Your task to perform on an android device: check android version Image 0: 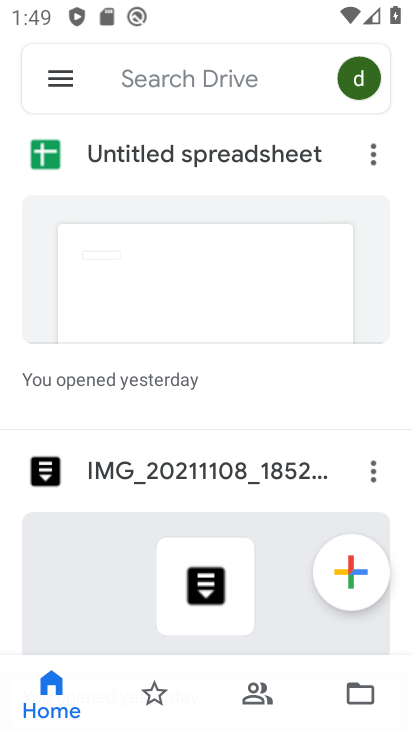
Step 0: drag from (250, 474) to (240, 245)
Your task to perform on an android device: check android version Image 1: 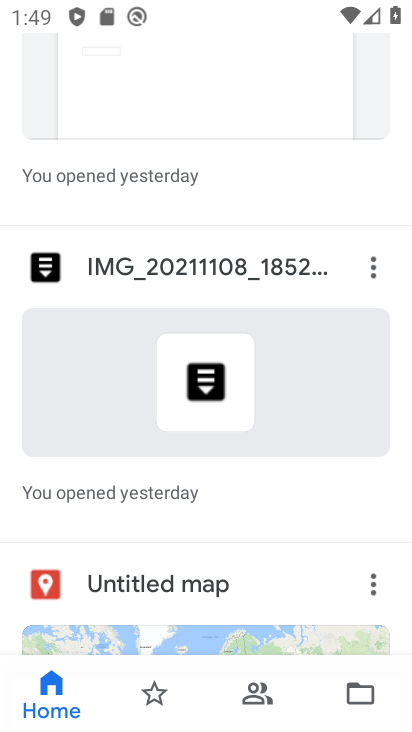
Step 1: drag from (237, 633) to (309, 176)
Your task to perform on an android device: check android version Image 2: 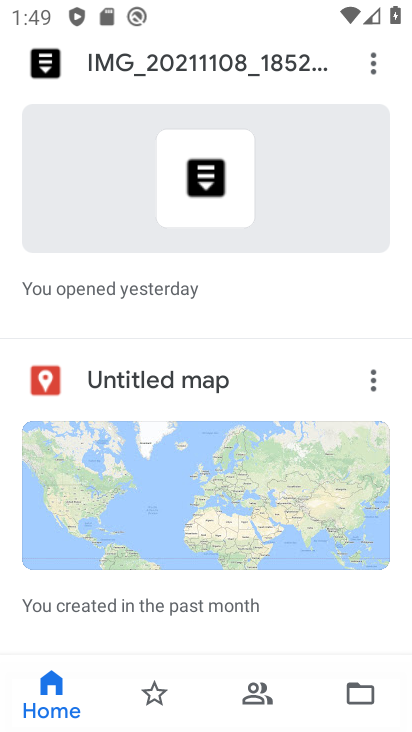
Step 2: press home button
Your task to perform on an android device: check android version Image 3: 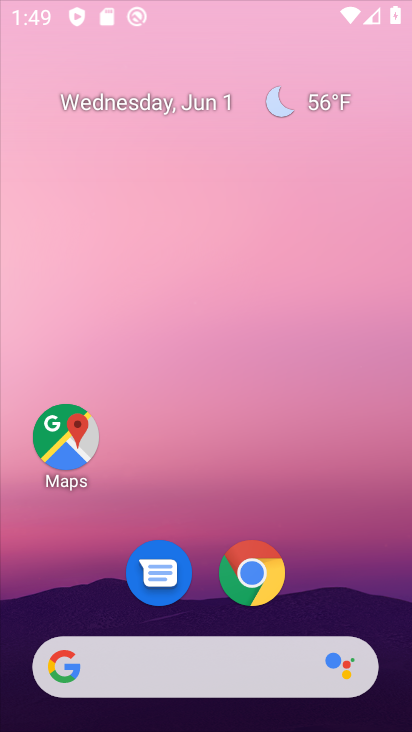
Step 3: drag from (240, 598) to (253, 186)
Your task to perform on an android device: check android version Image 4: 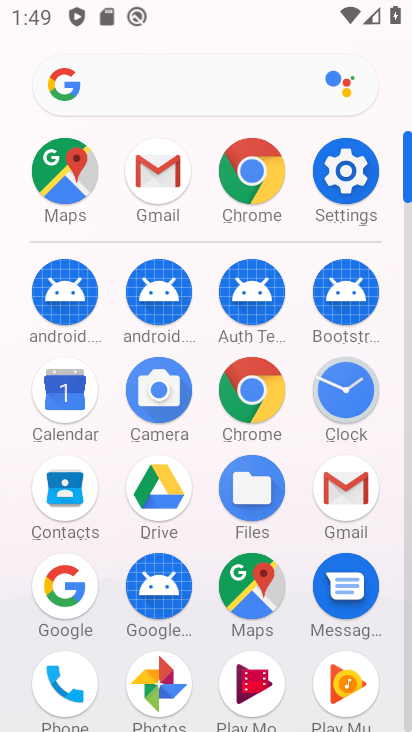
Step 4: click (343, 174)
Your task to perform on an android device: check android version Image 5: 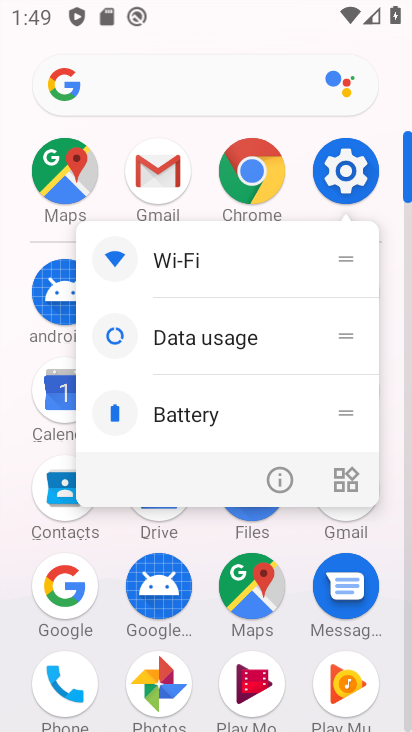
Step 5: click (273, 472)
Your task to perform on an android device: check android version Image 6: 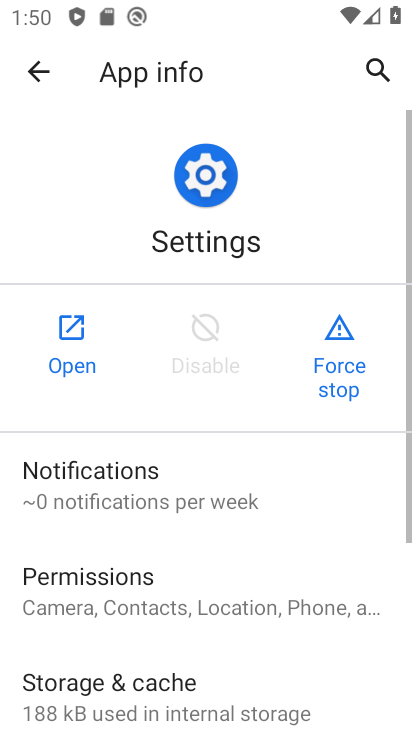
Step 6: click (54, 345)
Your task to perform on an android device: check android version Image 7: 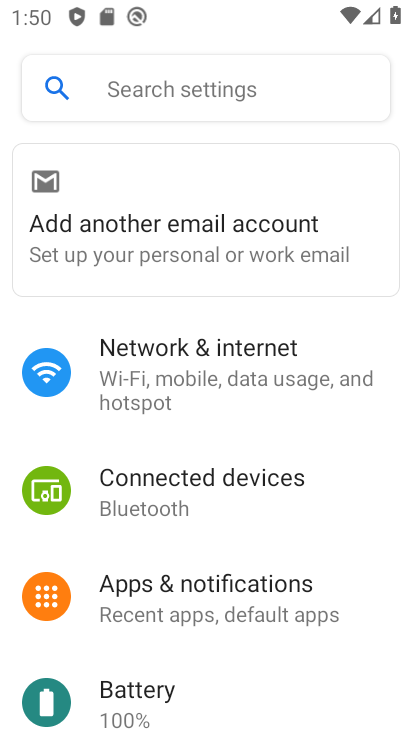
Step 7: drag from (178, 560) to (208, 23)
Your task to perform on an android device: check android version Image 8: 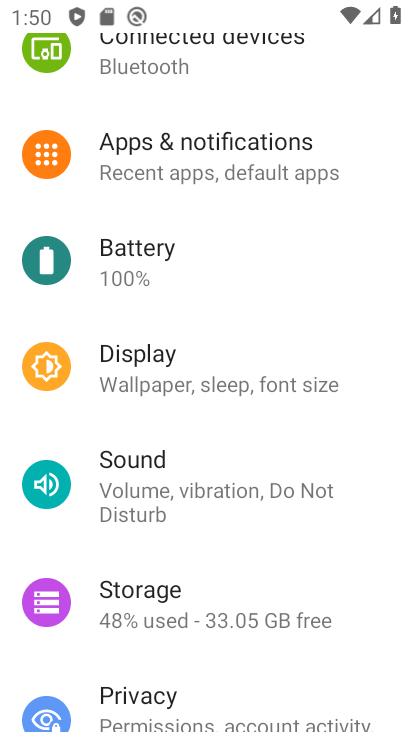
Step 8: drag from (216, 649) to (159, 230)
Your task to perform on an android device: check android version Image 9: 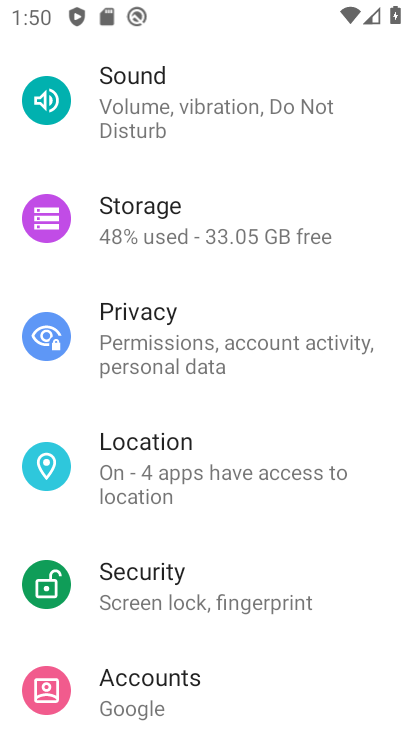
Step 9: drag from (207, 581) to (173, 232)
Your task to perform on an android device: check android version Image 10: 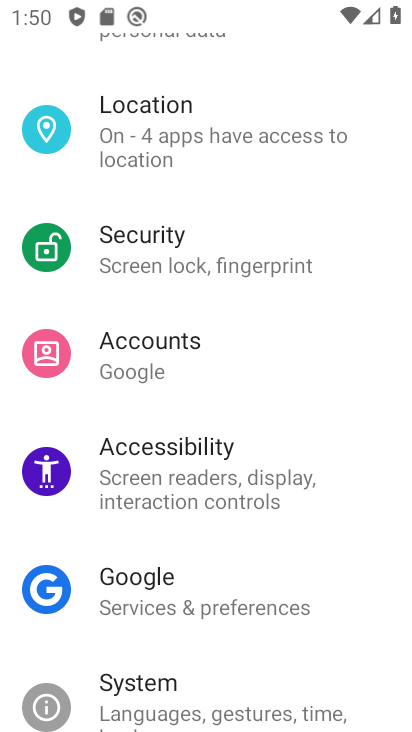
Step 10: drag from (189, 580) to (203, 288)
Your task to perform on an android device: check android version Image 11: 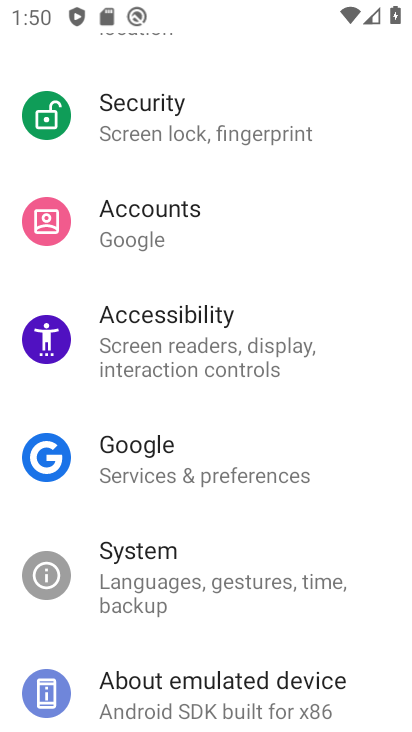
Step 11: click (221, 684)
Your task to perform on an android device: check android version Image 12: 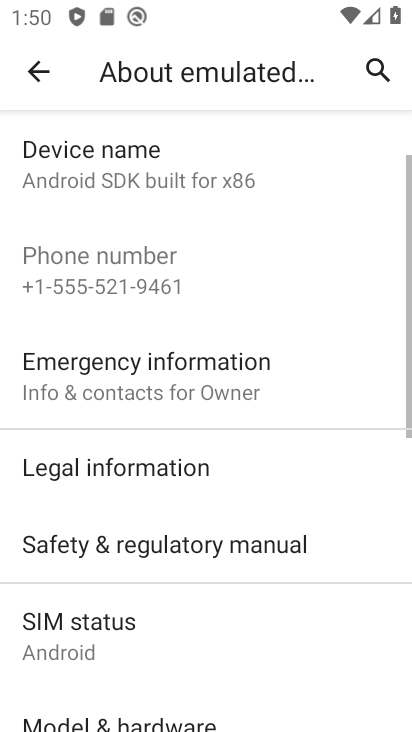
Step 12: drag from (165, 583) to (215, 252)
Your task to perform on an android device: check android version Image 13: 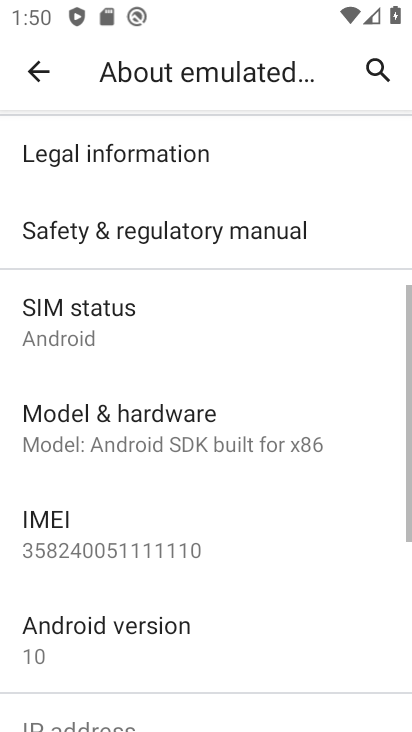
Step 13: click (116, 650)
Your task to perform on an android device: check android version Image 14: 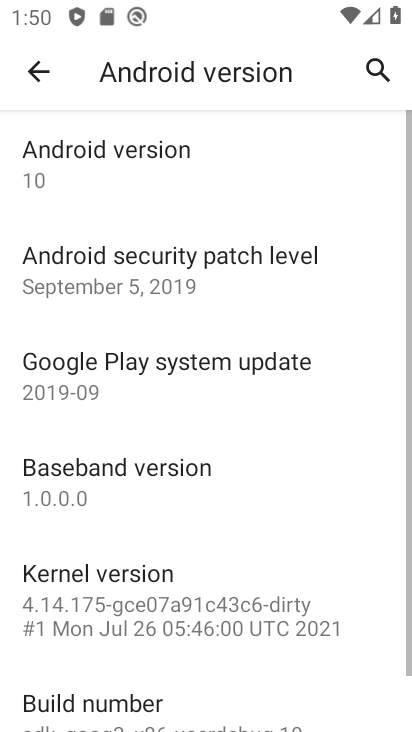
Step 14: task complete